Your task to perform on an android device: turn pop-ups off in chrome Image 0: 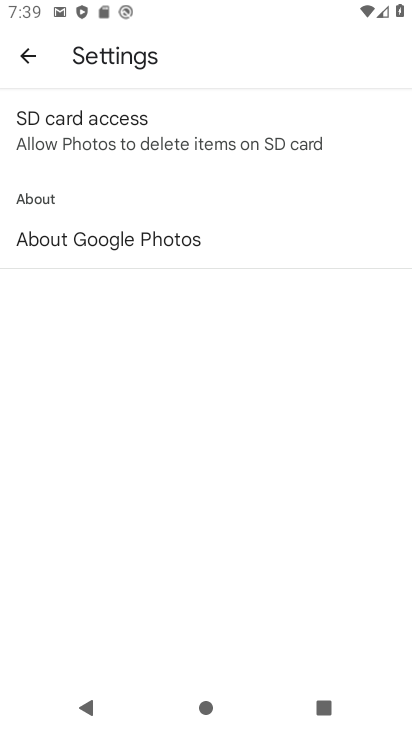
Step 0: press home button
Your task to perform on an android device: turn pop-ups off in chrome Image 1: 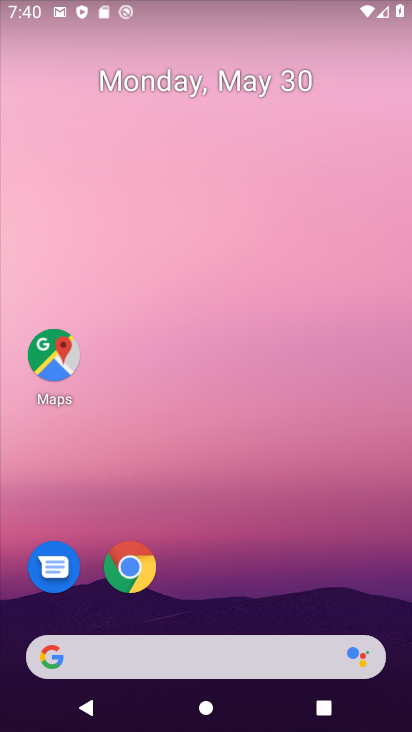
Step 1: task complete